Your task to perform on an android device: Search for Italian restaurants on Maps Image 0: 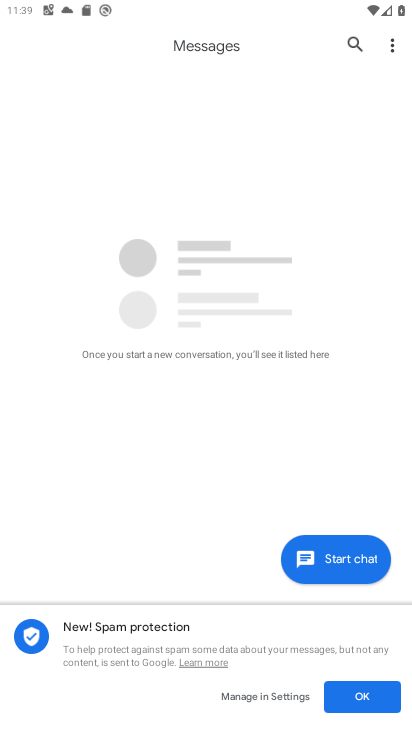
Step 0: press home button
Your task to perform on an android device: Search for Italian restaurants on Maps Image 1: 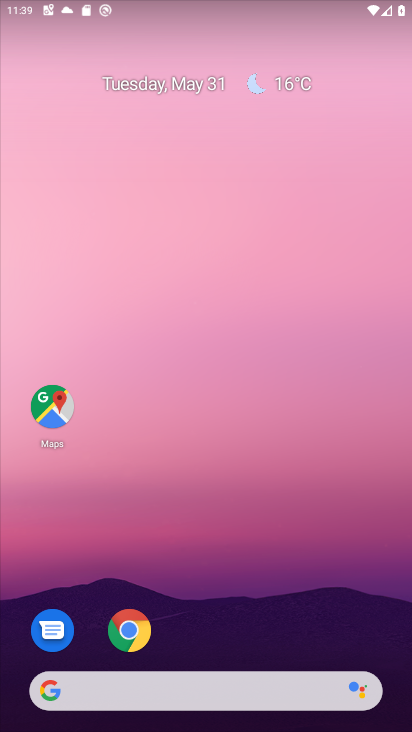
Step 1: click (50, 399)
Your task to perform on an android device: Search for Italian restaurants on Maps Image 2: 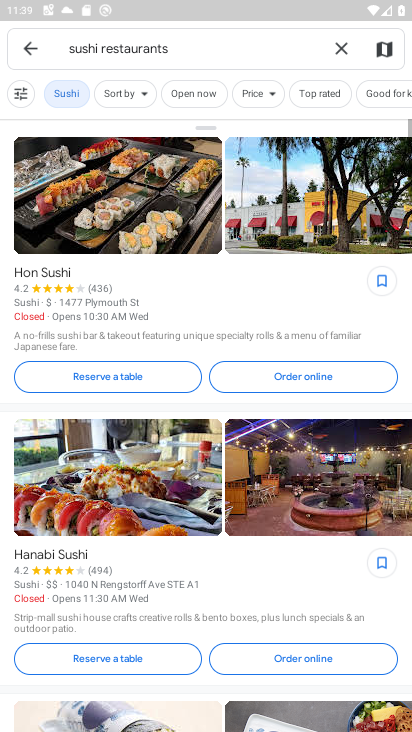
Step 2: click (210, 43)
Your task to perform on an android device: Search for Italian restaurants on Maps Image 3: 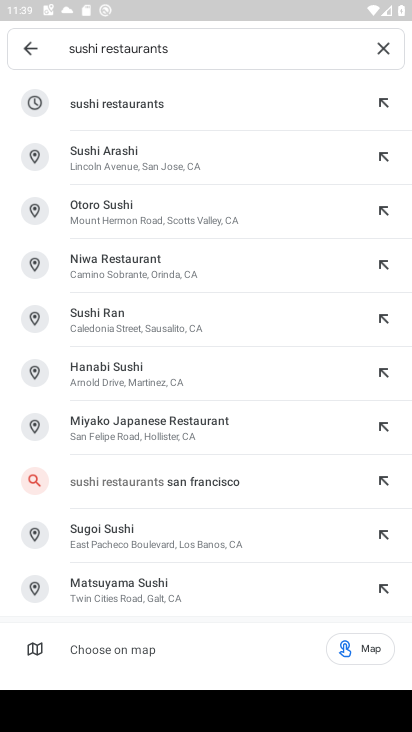
Step 3: click (396, 38)
Your task to perform on an android device: Search for Italian restaurants on Maps Image 4: 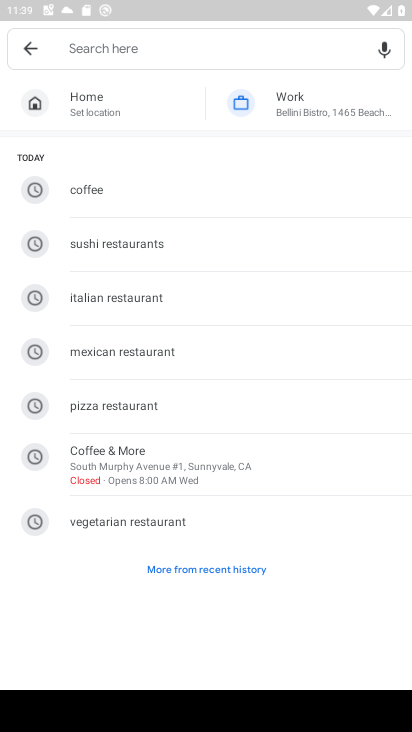
Step 4: type "Italian restaurants"
Your task to perform on an android device: Search for Italian restaurants on Maps Image 5: 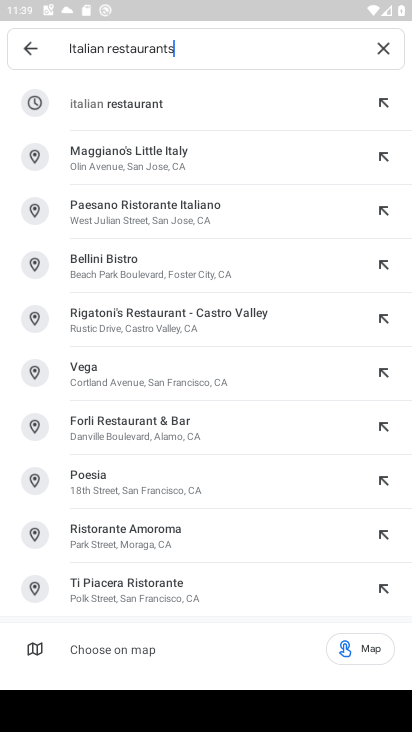
Step 5: press enter
Your task to perform on an android device: Search for Italian restaurants on Maps Image 6: 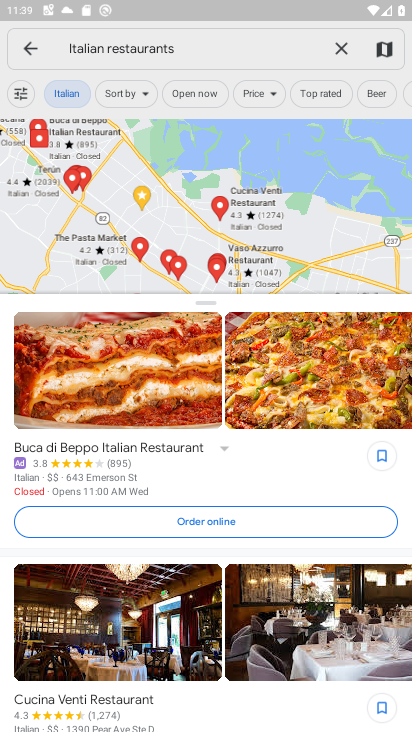
Step 6: task complete